Your task to perform on an android device: Open calendar and show me the third week of next month Image 0: 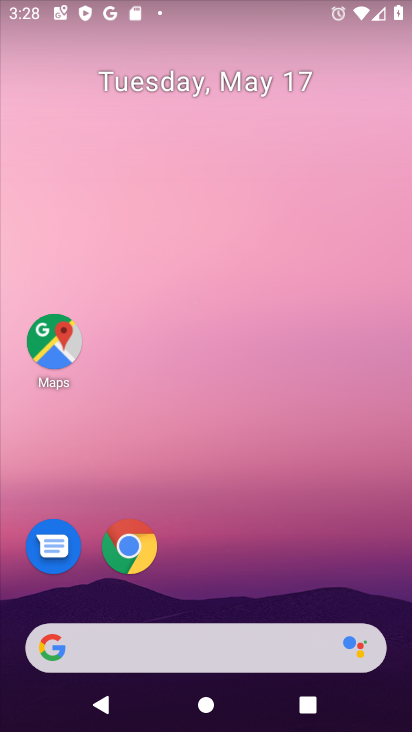
Step 0: drag from (395, 522) to (342, 211)
Your task to perform on an android device: Open calendar and show me the third week of next month Image 1: 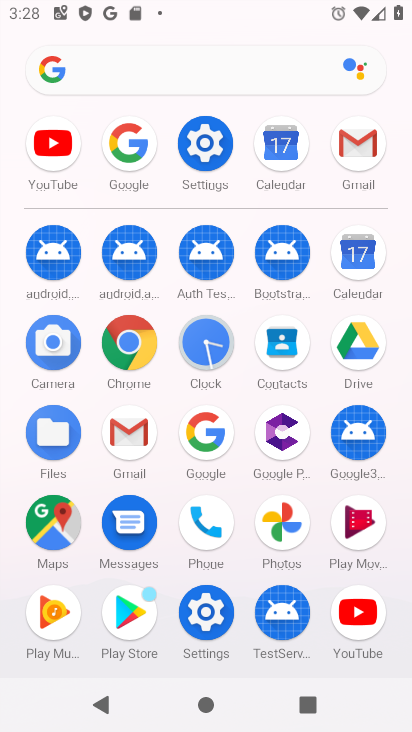
Step 1: click (365, 244)
Your task to perform on an android device: Open calendar and show me the third week of next month Image 2: 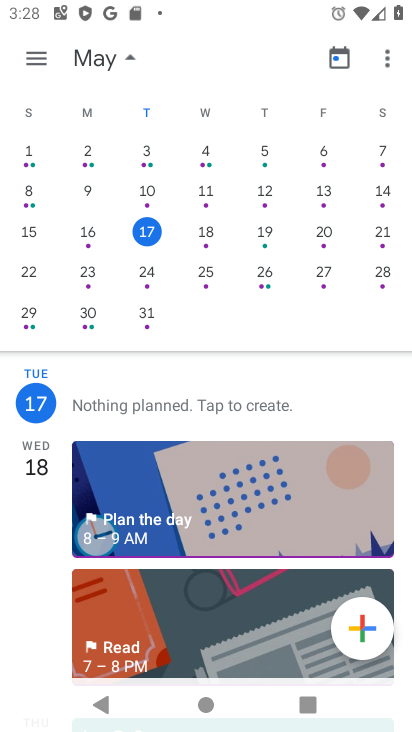
Step 2: click (135, 57)
Your task to perform on an android device: Open calendar and show me the third week of next month Image 3: 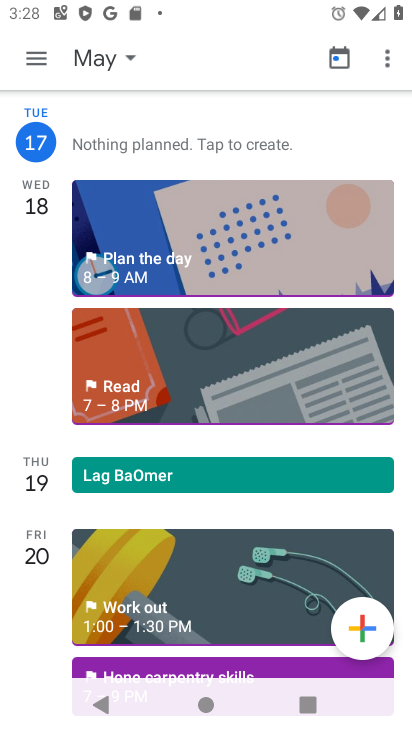
Step 3: click (136, 54)
Your task to perform on an android device: Open calendar and show me the third week of next month Image 4: 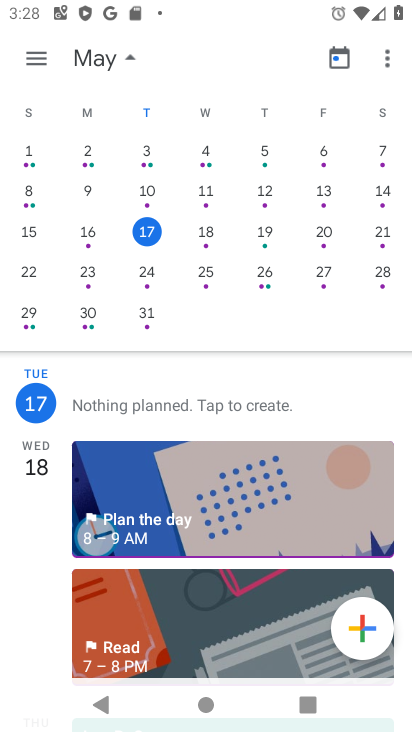
Step 4: drag from (397, 196) to (347, 206)
Your task to perform on an android device: Open calendar and show me the third week of next month Image 5: 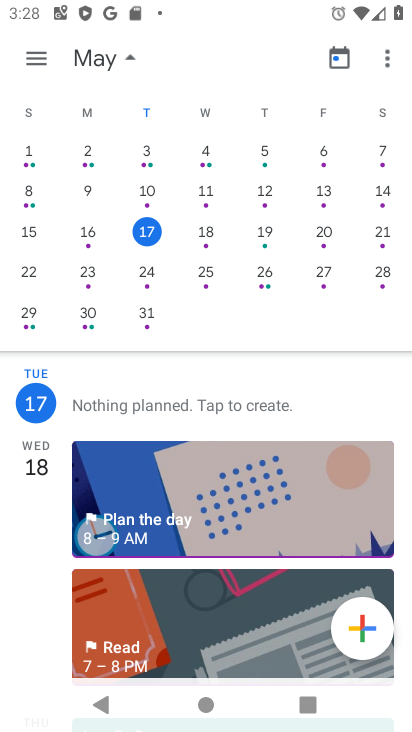
Step 5: drag from (401, 195) to (184, 176)
Your task to perform on an android device: Open calendar and show me the third week of next month Image 6: 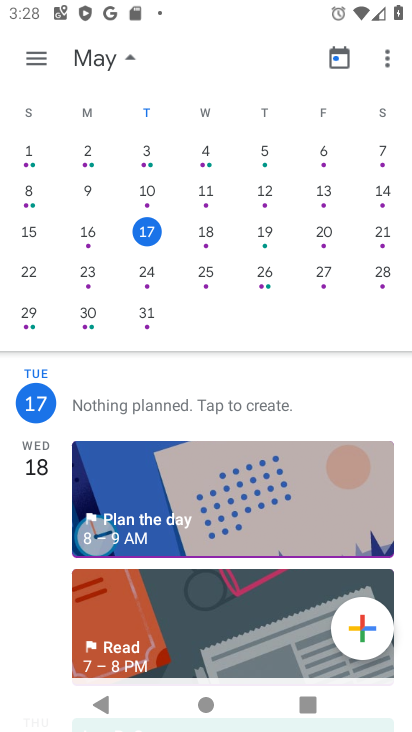
Step 6: drag from (404, 177) to (165, 150)
Your task to perform on an android device: Open calendar and show me the third week of next month Image 7: 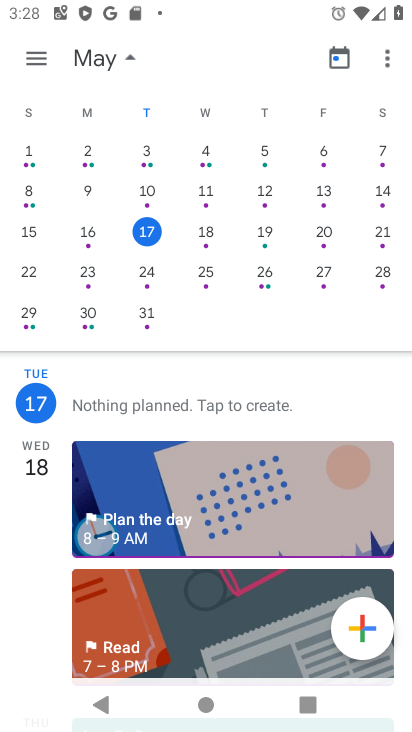
Step 7: drag from (399, 174) to (13, 187)
Your task to perform on an android device: Open calendar and show me the third week of next month Image 8: 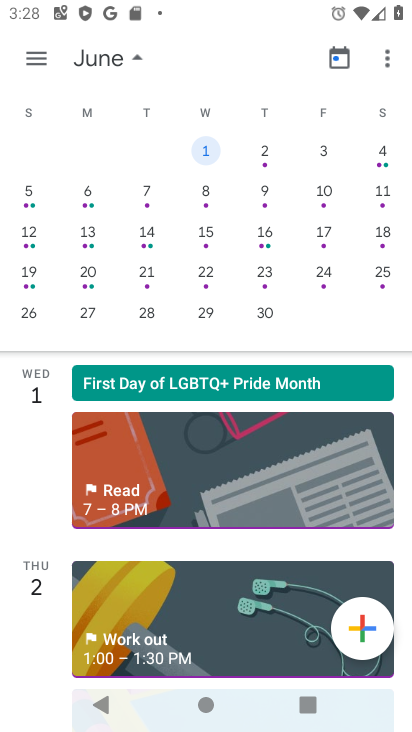
Step 8: click (268, 234)
Your task to perform on an android device: Open calendar and show me the third week of next month Image 9: 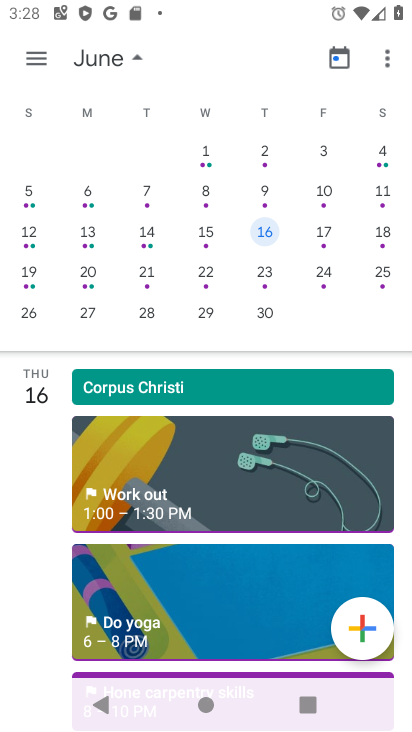
Step 9: task complete